Your task to perform on an android device: install app "Pluto TV - Live TV and Movies" Image 0: 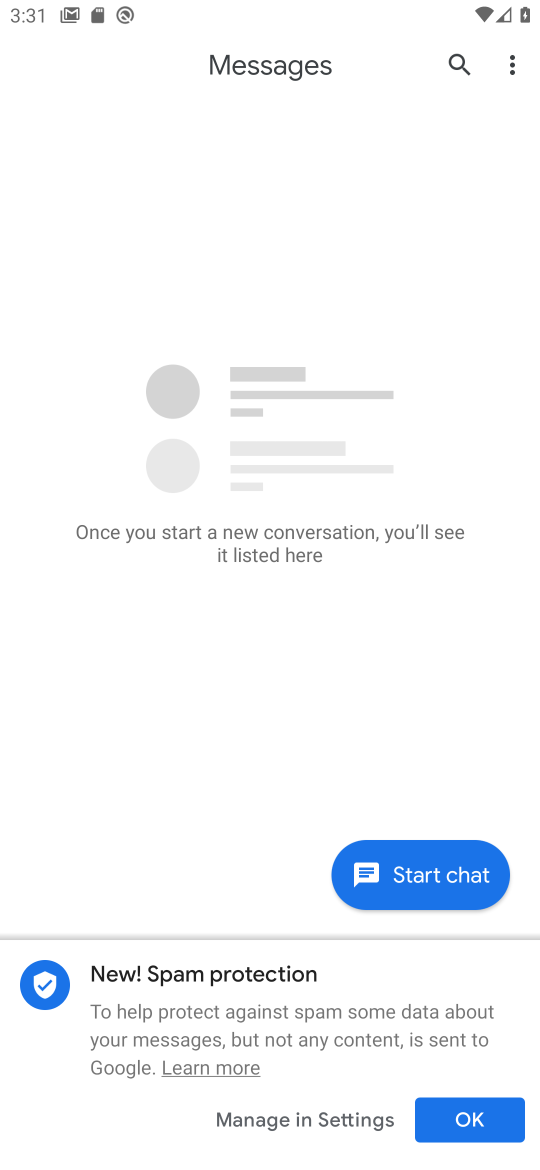
Step 0: press home button
Your task to perform on an android device: install app "Pluto TV - Live TV and Movies" Image 1: 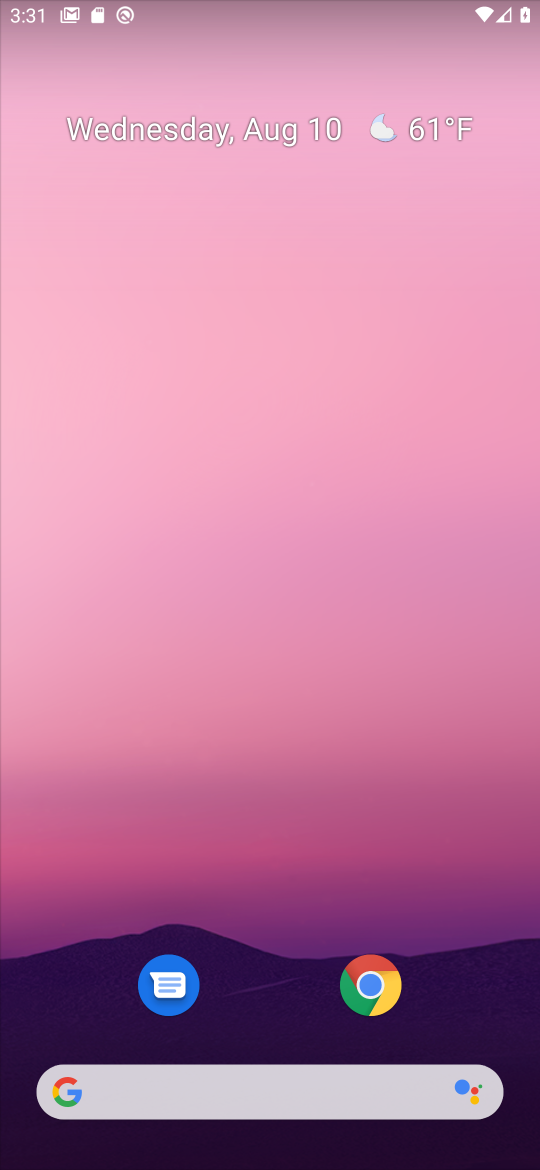
Step 1: drag from (235, 1024) to (354, 70)
Your task to perform on an android device: install app "Pluto TV - Live TV and Movies" Image 2: 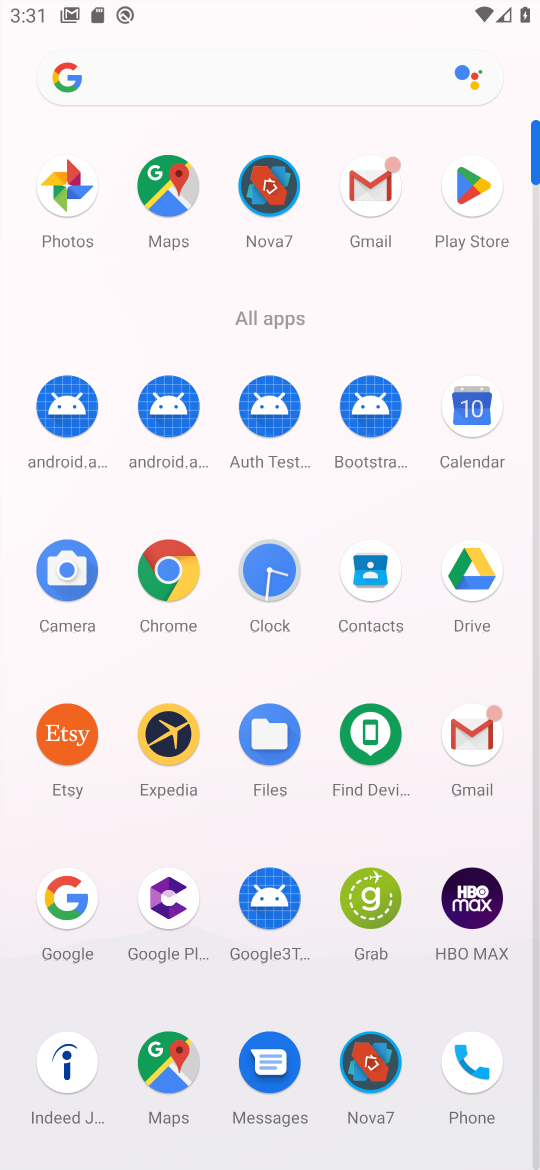
Step 2: click (465, 207)
Your task to perform on an android device: install app "Pluto TV - Live TV and Movies" Image 3: 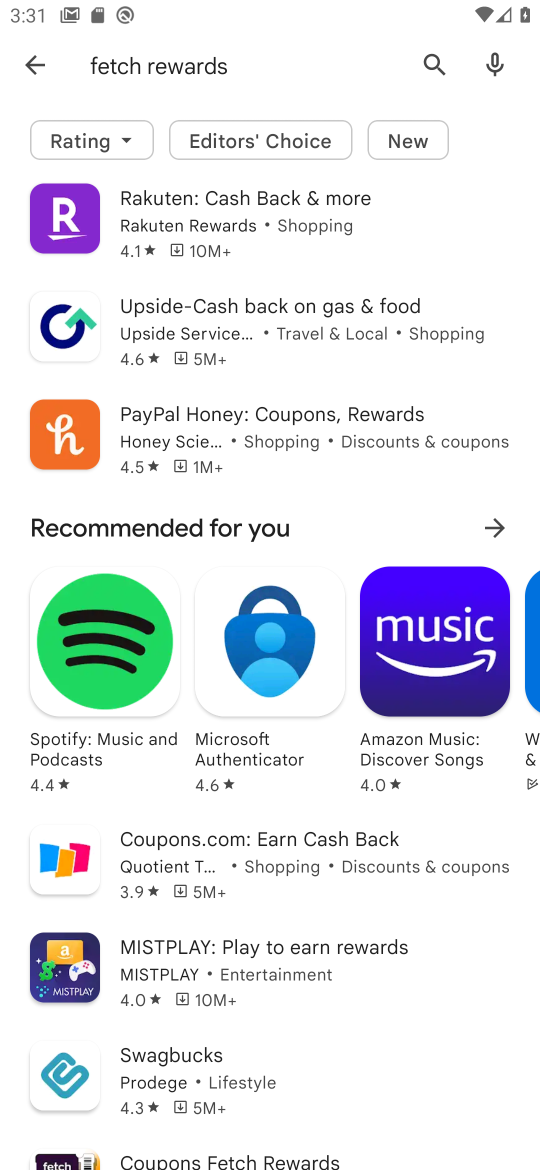
Step 3: click (34, 73)
Your task to perform on an android device: install app "Pluto TV - Live TV and Movies" Image 4: 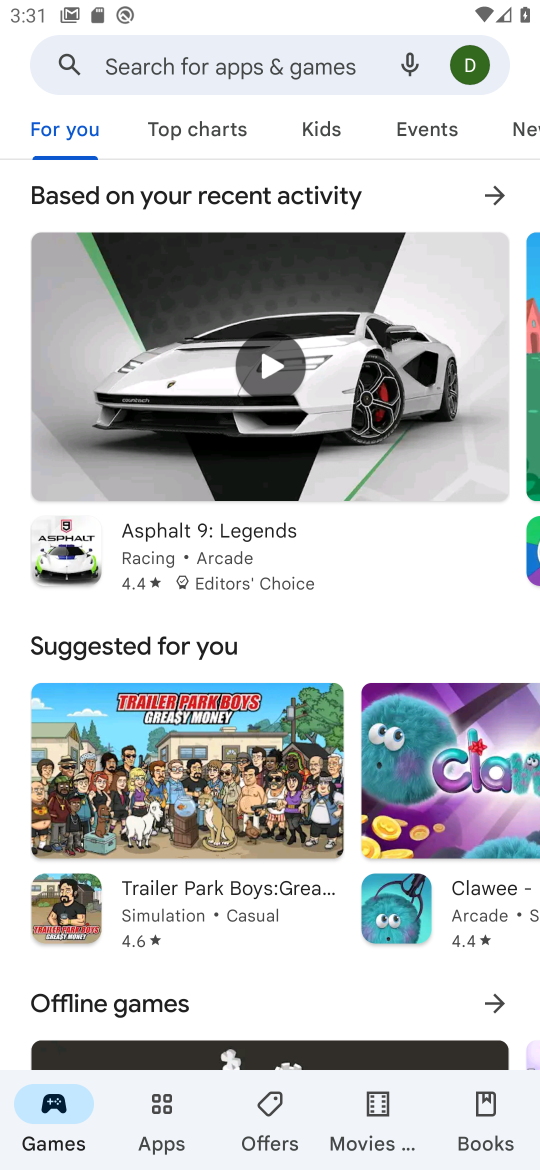
Step 4: click (220, 63)
Your task to perform on an android device: install app "Pluto TV - Live TV and Movies" Image 5: 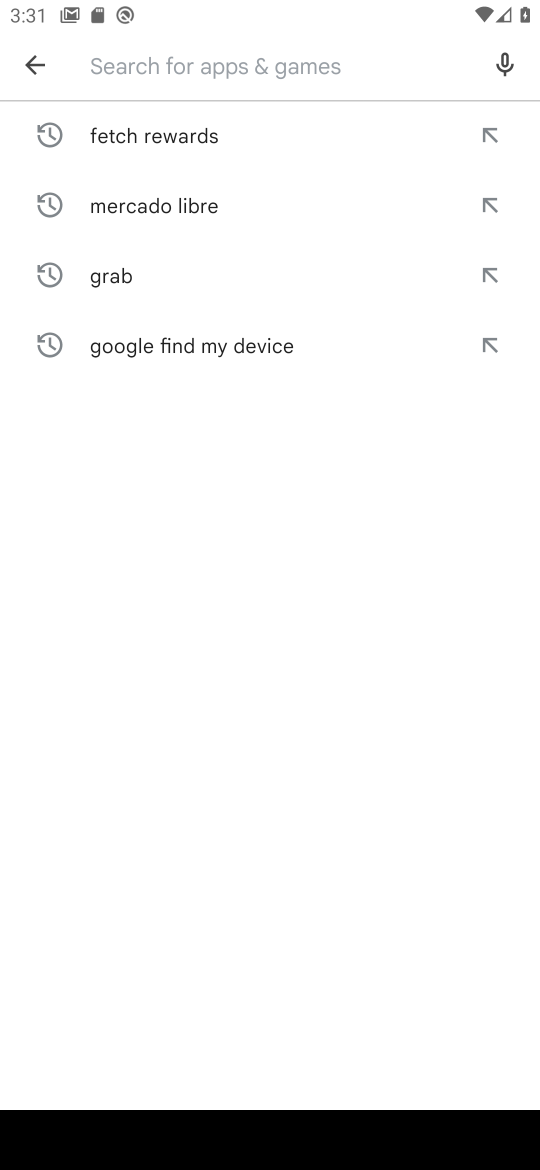
Step 5: type "Pluto TV - Live TV and Movies"
Your task to perform on an android device: install app "Pluto TV - Live TV and Movies" Image 6: 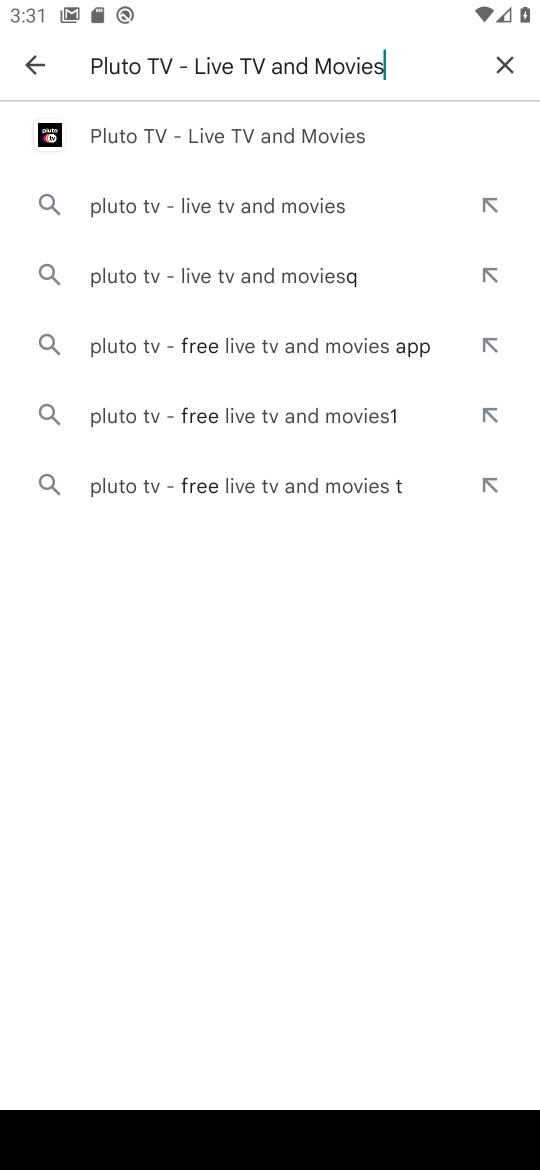
Step 6: click (166, 133)
Your task to perform on an android device: install app "Pluto TV - Live TV and Movies" Image 7: 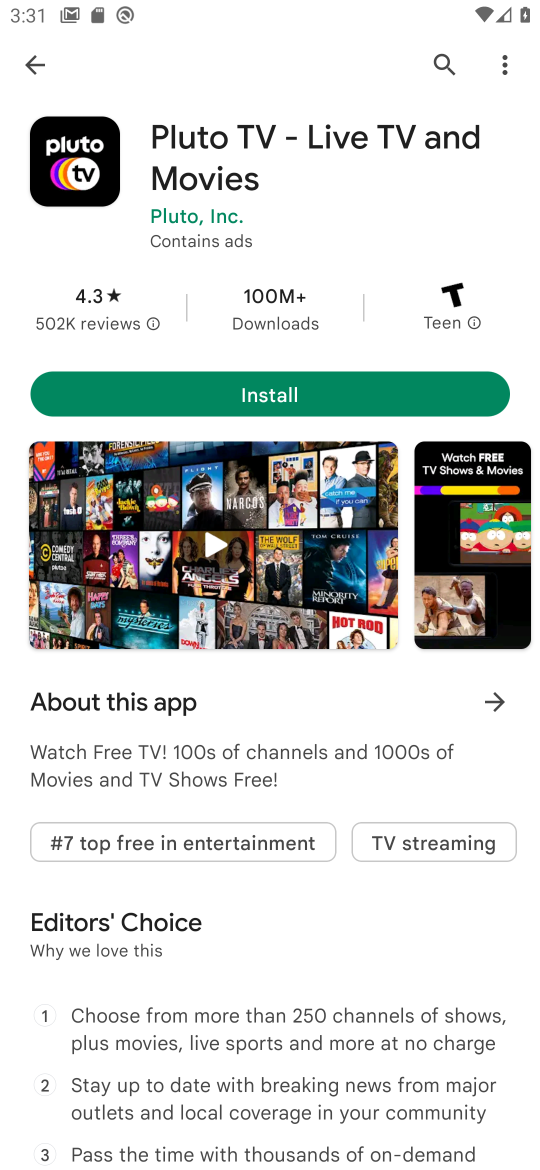
Step 7: click (271, 389)
Your task to perform on an android device: install app "Pluto TV - Live TV and Movies" Image 8: 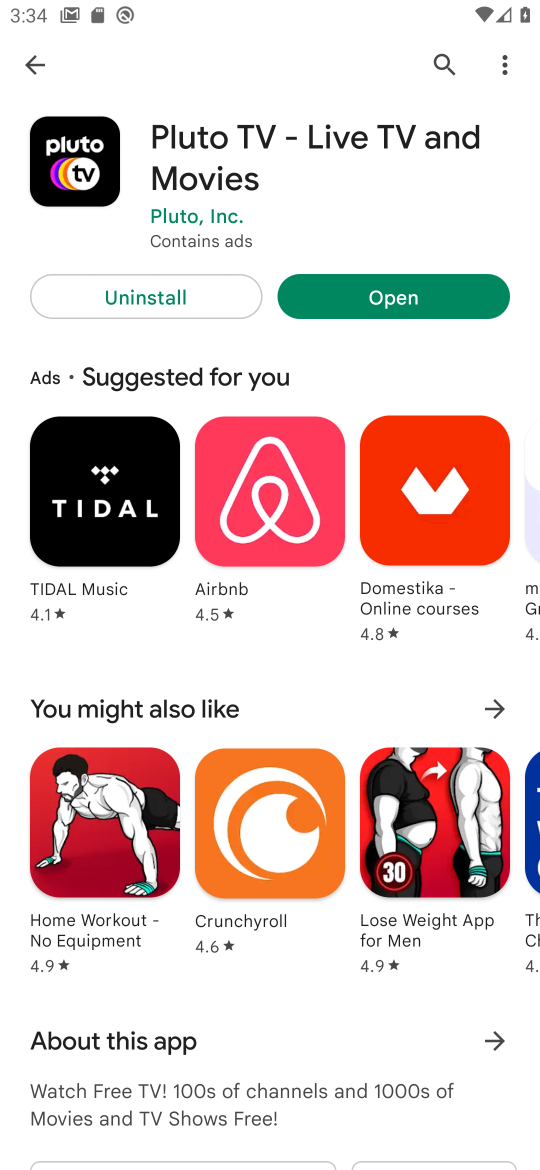
Step 8: task complete